Your task to perform on an android device: Open Chrome and go to settings Image 0: 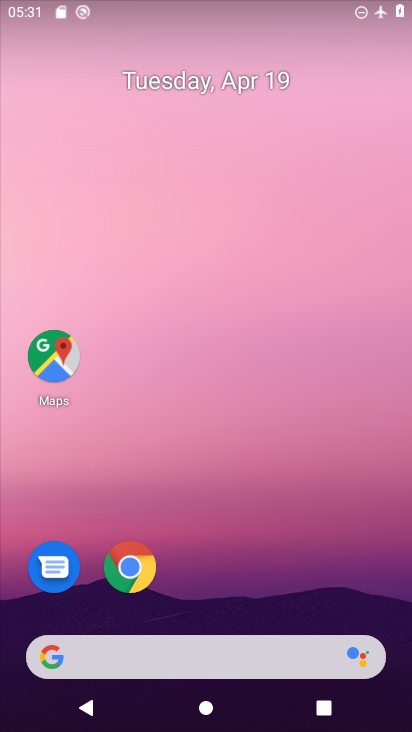
Step 0: drag from (248, 570) to (236, 137)
Your task to perform on an android device: Open Chrome and go to settings Image 1: 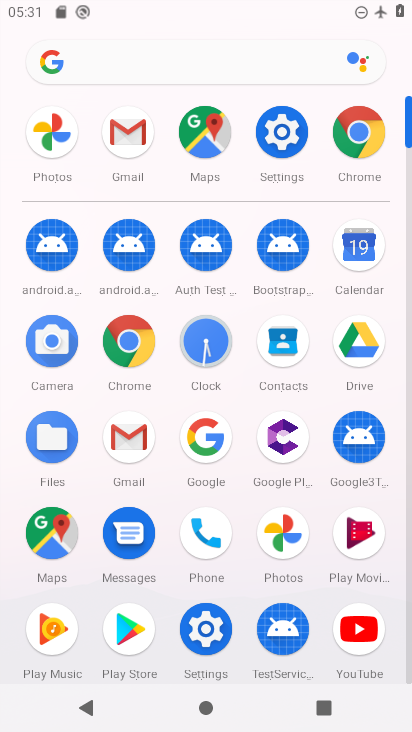
Step 1: click (130, 341)
Your task to perform on an android device: Open Chrome and go to settings Image 2: 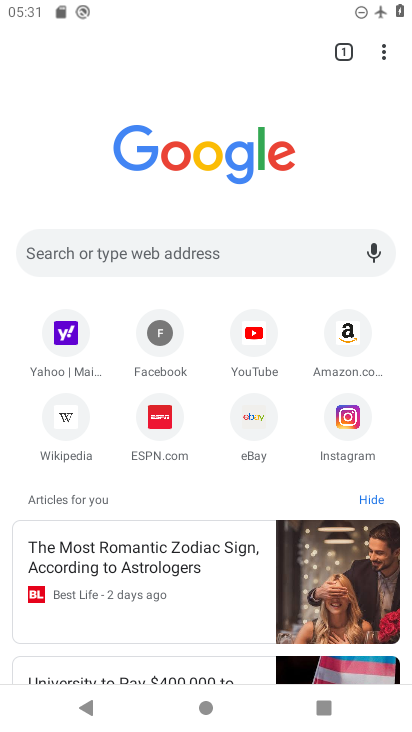
Step 2: click (389, 58)
Your task to perform on an android device: Open Chrome and go to settings Image 3: 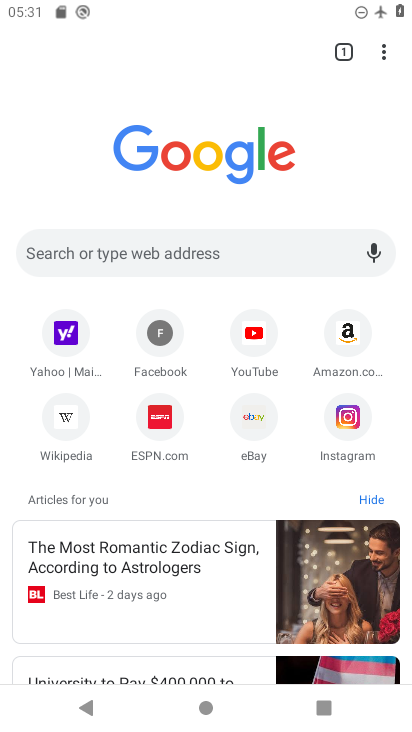
Step 3: click (377, 48)
Your task to perform on an android device: Open Chrome and go to settings Image 4: 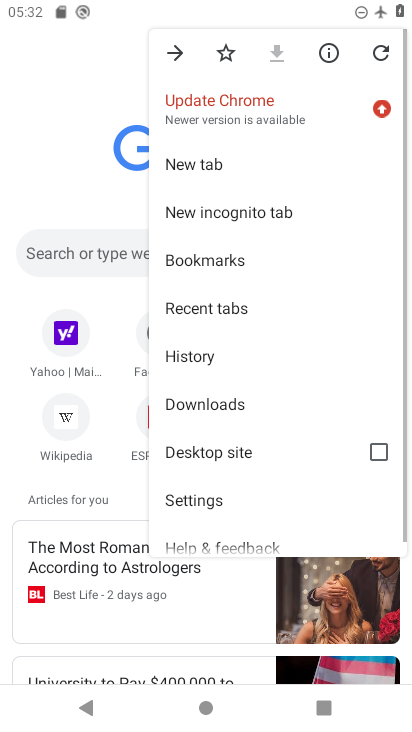
Step 4: drag from (259, 508) to (286, 230)
Your task to perform on an android device: Open Chrome and go to settings Image 5: 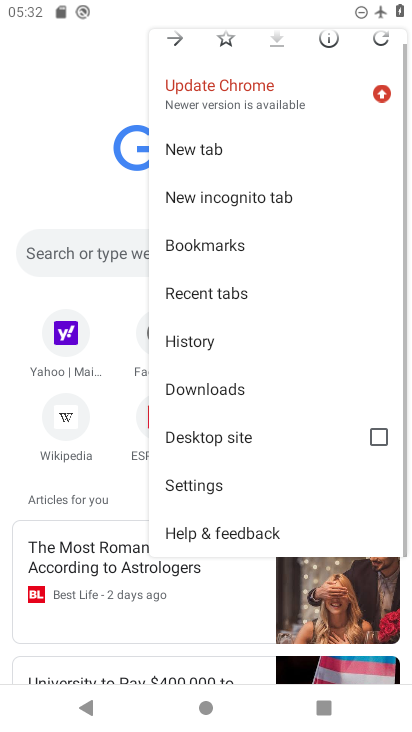
Step 5: click (247, 479)
Your task to perform on an android device: Open Chrome and go to settings Image 6: 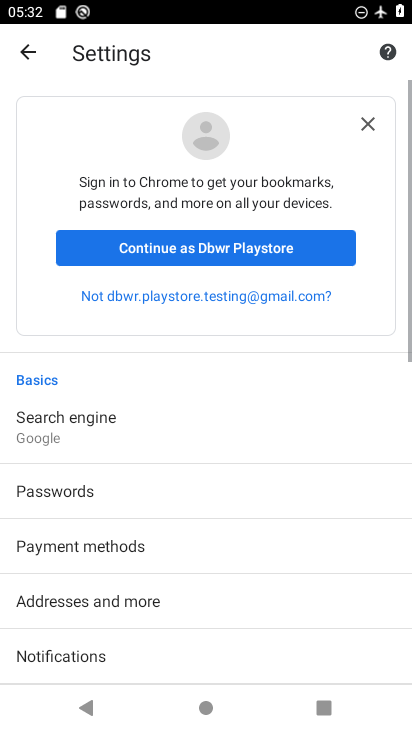
Step 6: task complete